Your task to perform on an android device: turn off smart reply in the gmail app Image 0: 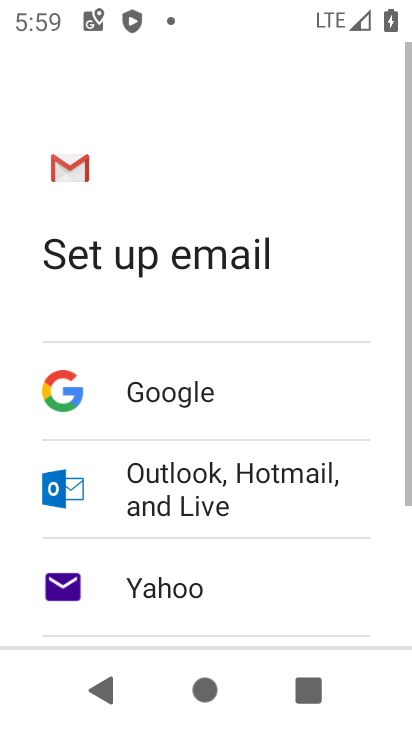
Step 0: press home button
Your task to perform on an android device: turn off smart reply in the gmail app Image 1: 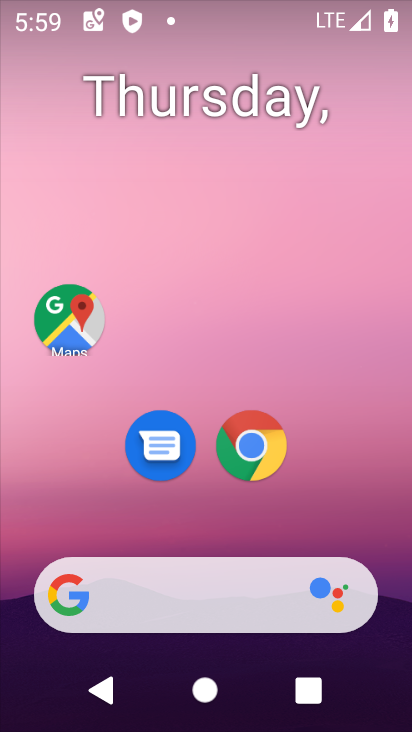
Step 1: drag from (278, 500) to (297, 122)
Your task to perform on an android device: turn off smart reply in the gmail app Image 2: 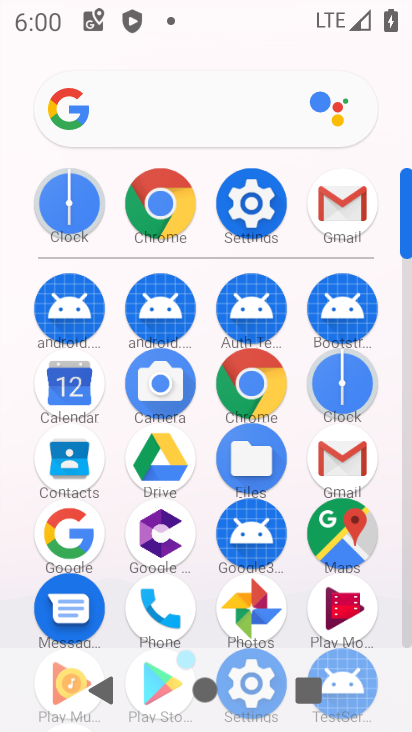
Step 2: click (331, 202)
Your task to perform on an android device: turn off smart reply in the gmail app Image 3: 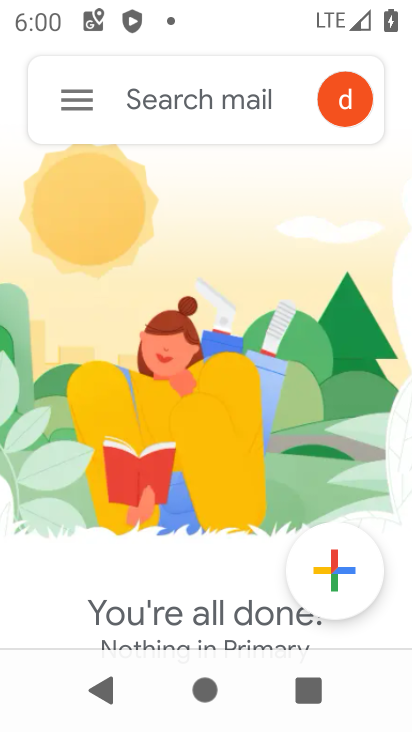
Step 3: click (83, 99)
Your task to perform on an android device: turn off smart reply in the gmail app Image 4: 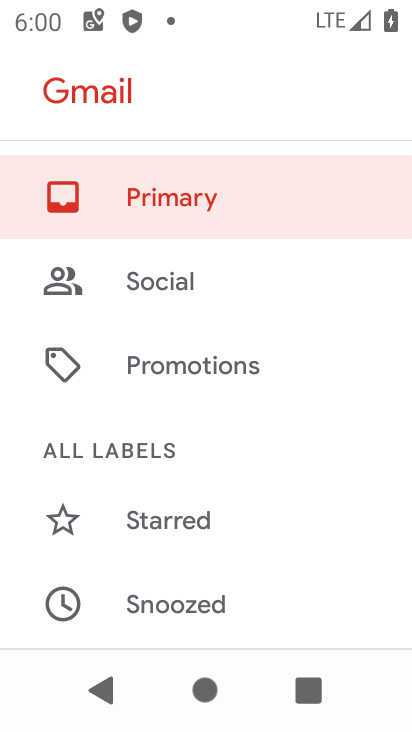
Step 4: drag from (270, 585) to (274, 238)
Your task to perform on an android device: turn off smart reply in the gmail app Image 5: 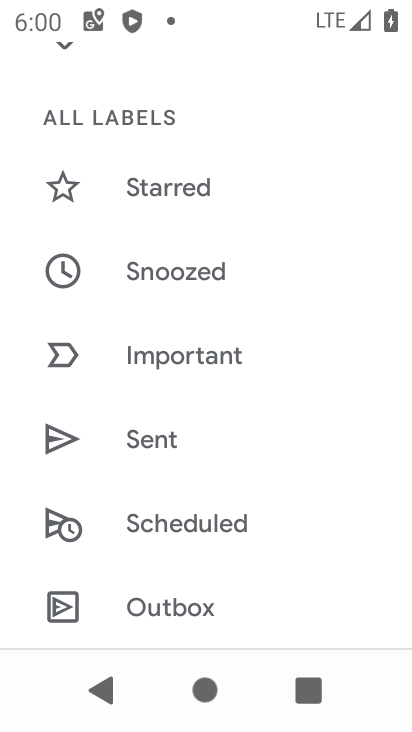
Step 5: drag from (295, 525) to (303, 233)
Your task to perform on an android device: turn off smart reply in the gmail app Image 6: 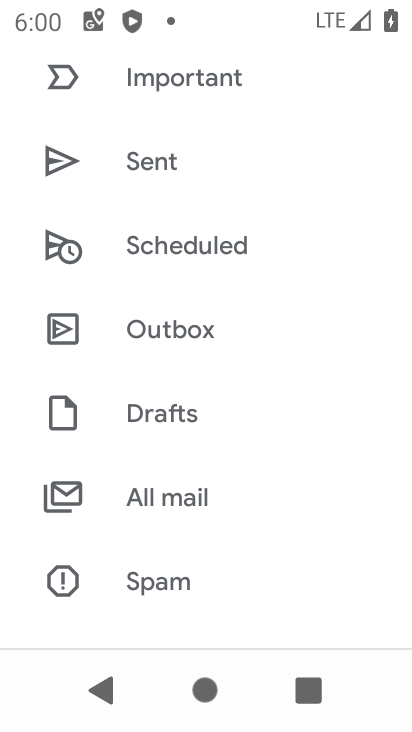
Step 6: drag from (270, 489) to (276, 264)
Your task to perform on an android device: turn off smart reply in the gmail app Image 7: 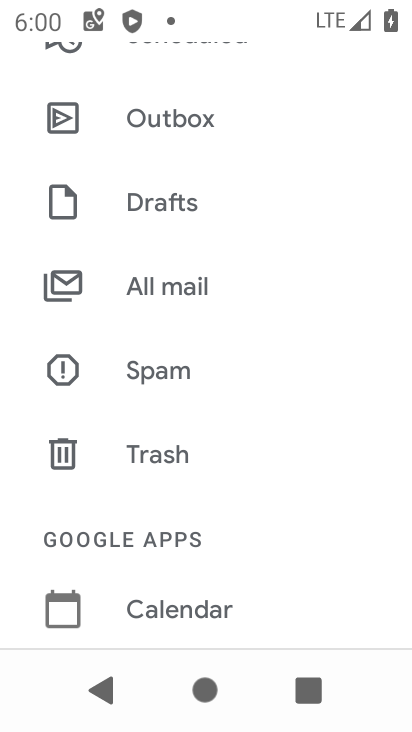
Step 7: drag from (289, 493) to (299, 201)
Your task to perform on an android device: turn off smart reply in the gmail app Image 8: 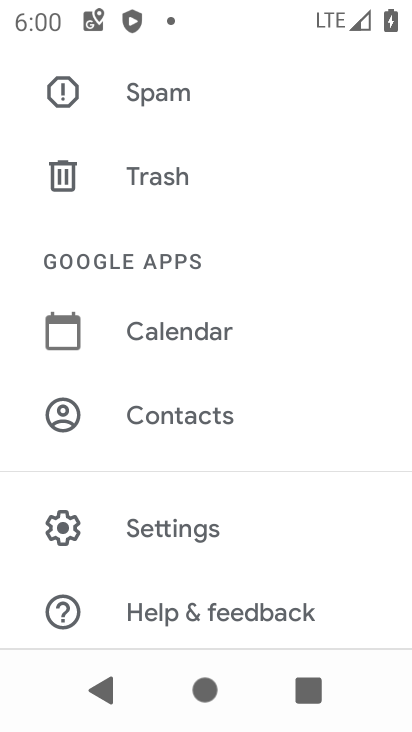
Step 8: drag from (297, 571) to (299, 258)
Your task to perform on an android device: turn off smart reply in the gmail app Image 9: 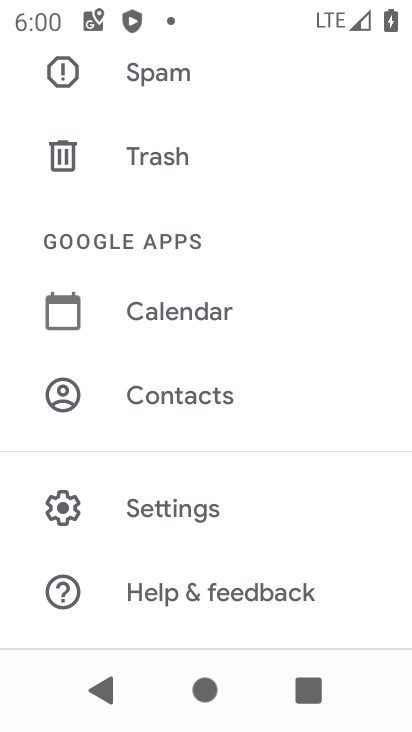
Step 9: click (177, 506)
Your task to perform on an android device: turn off smart reply in the gmail app Image 10: 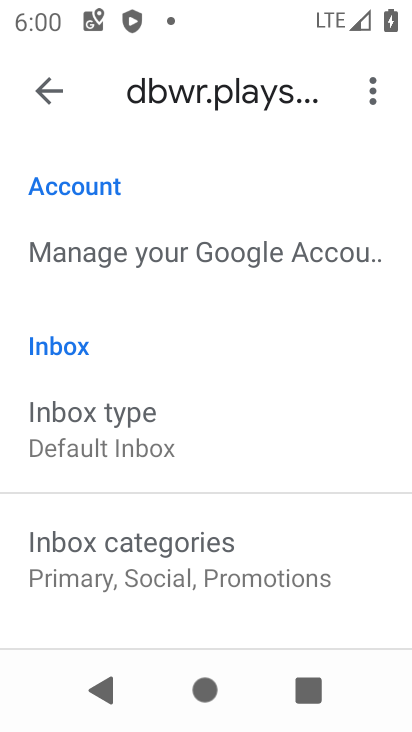
Step 10: drag from (333, 494) to (341, 98)
Your task to perform on an android device: turn off smart reply in the gmail app Image 11: 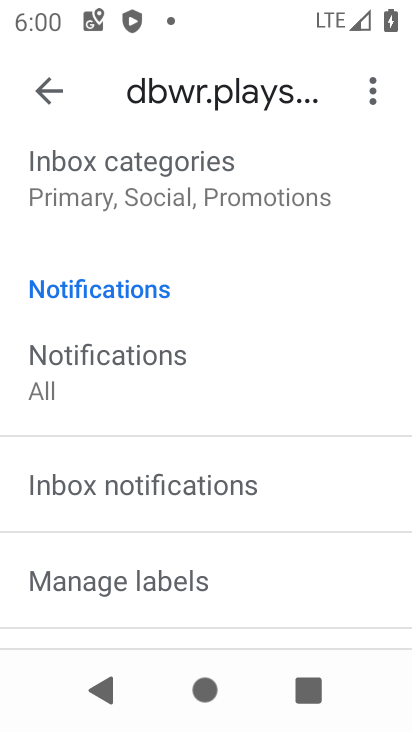
Step 11: drag from (328, 593) to (313, 257)
Your task to perform on an android device: turn off smart reply in the gmail app Image 12: 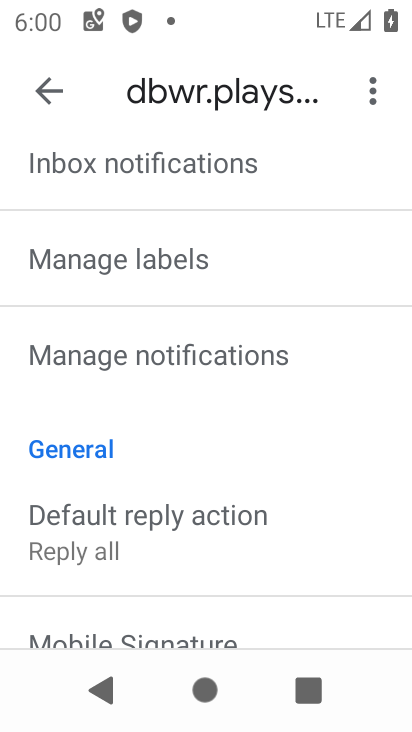
Step 12: drag from (280, 585) to (280, 270)
Your task to perform on an android device: turn off smart reply in the gmail app Image 13: 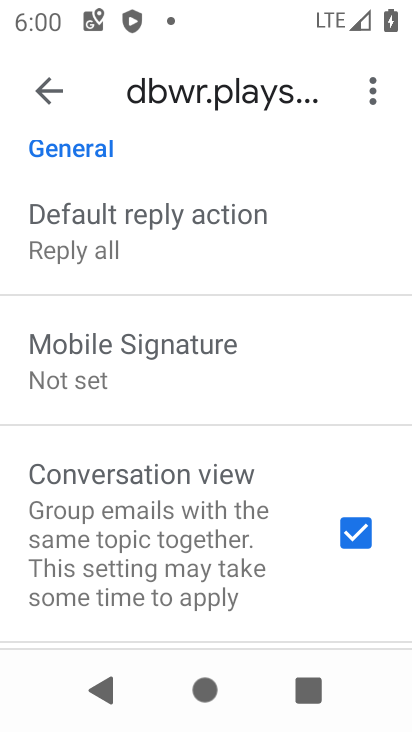
Step 13: drag from (297, 619) to (306, 251)
Your task to perform on an android device: turn off smart reply in the gmail app Image 14: 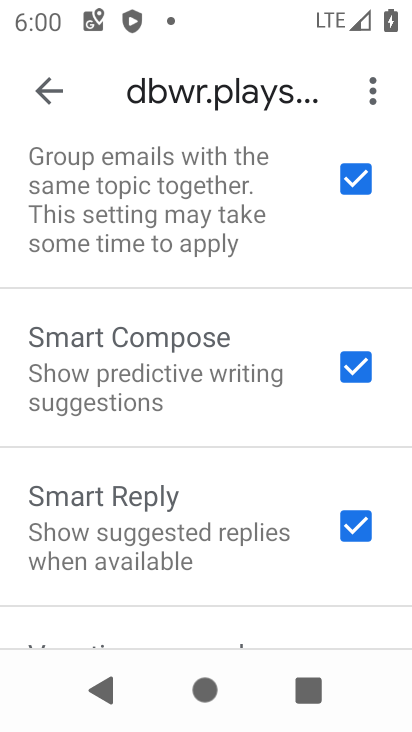
Step 14: click (346, 522)
Your task to perform on an android device: turn off smart reply in the gmail app Image 15: 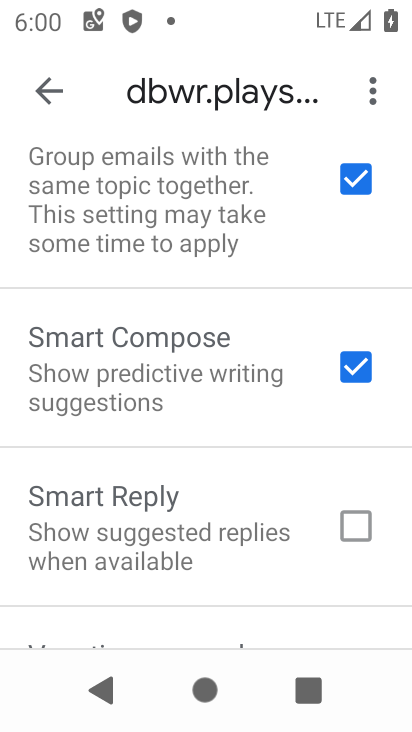
Step 15: task complete